Your task to perform on an android device: What's the weather going to be this weekend? Image 0: 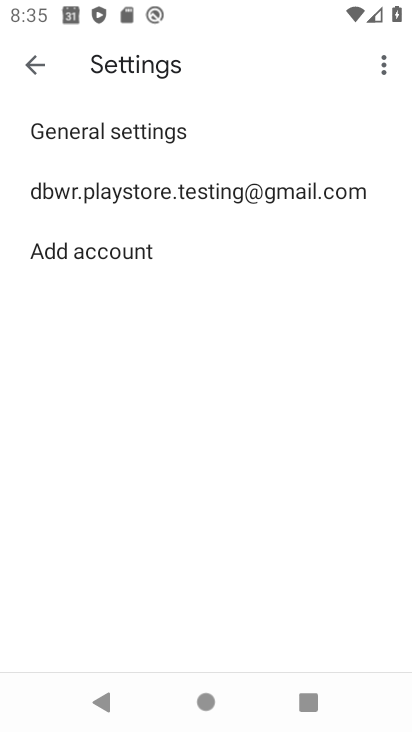
Step 0: press home button
Your task to perform on an android device: What's the weather going to be this weekend? Image 1: 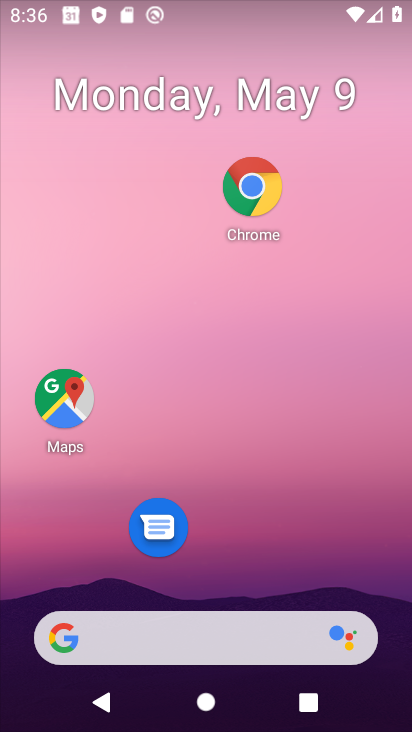
Step 1: drag from (10, 221) to (409, 262)
Your task to perform on an android device: What's the weather going to be this weekend? Image 2: 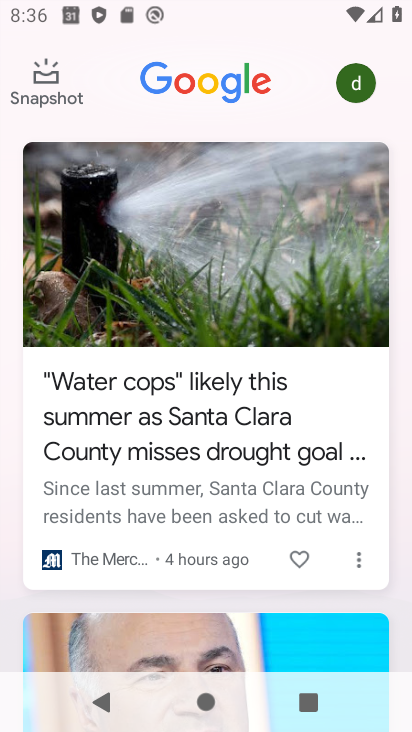
Step 2: drag from (152, 197) to (171, 650)
Your task to perform on an android device: What's the weather going to be this weekend? Image 3: 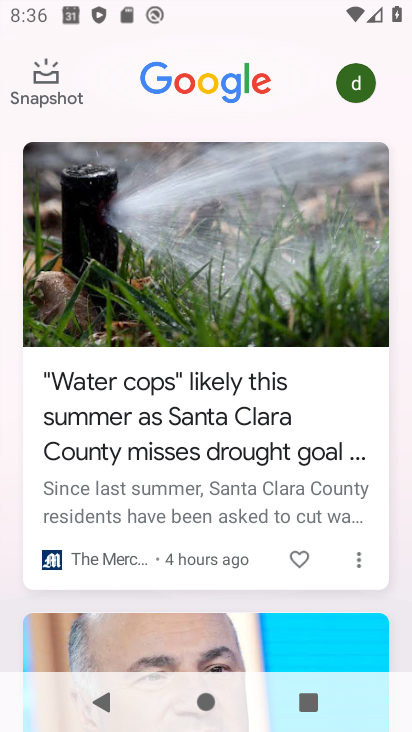
Step 3: press back button
Your task to perform on an android device: What's the weather going to be this weekend? Image 4: 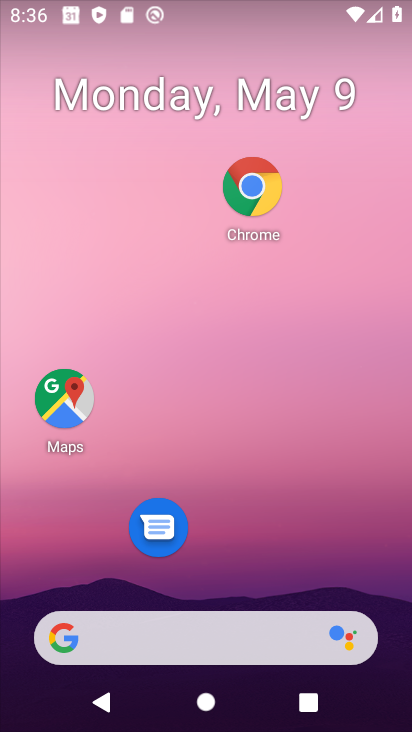
Step 4: click (161, 633)
Your task to perform on an android device: What's the weather going to be this weekend? Image 5: 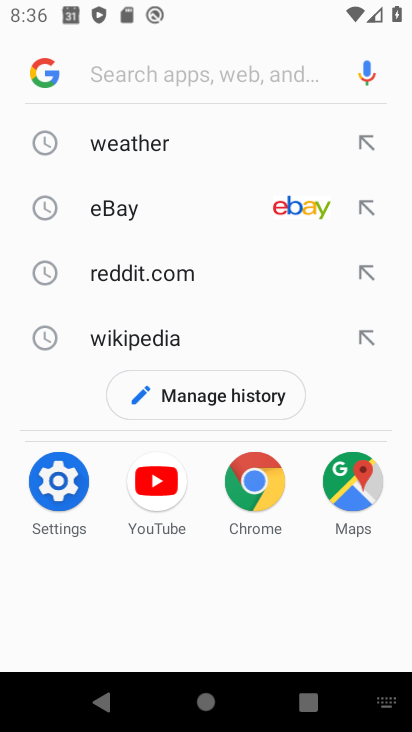
Step 5: click (148, 125)
Your task to perform on an android device: What's the weather going to be this weekend? Image 6: 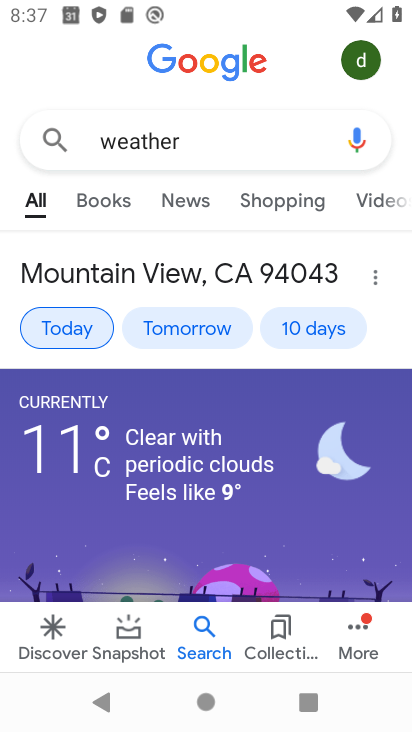
Step 6: click (298, 329)
Your task to perform on an android device: What's the weather going to be this weekend? Image 7: 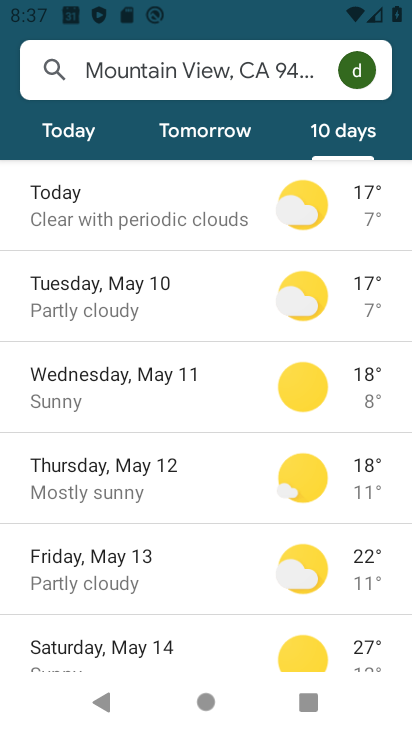
Step 7: task complete